Your task to perform on an android device: Clear the shopping cart on ebay. Add razer blade to the cart on ebay Image 0: 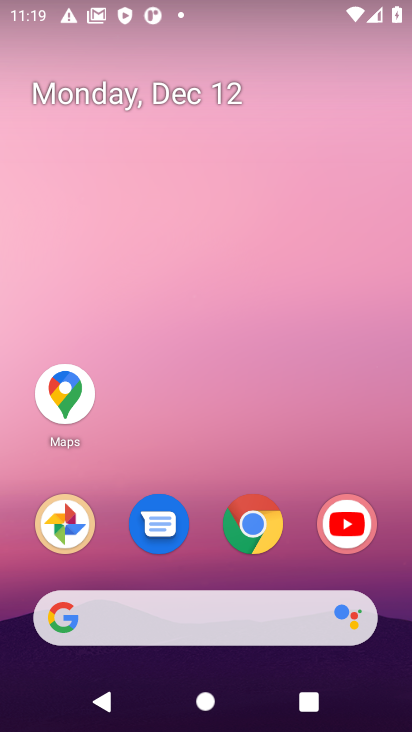
Step 0: click (260, 536)
Your task to perform on an android device: Clear the shopping cart on ebay. Add razer blade to the cart on ebay Image 1: 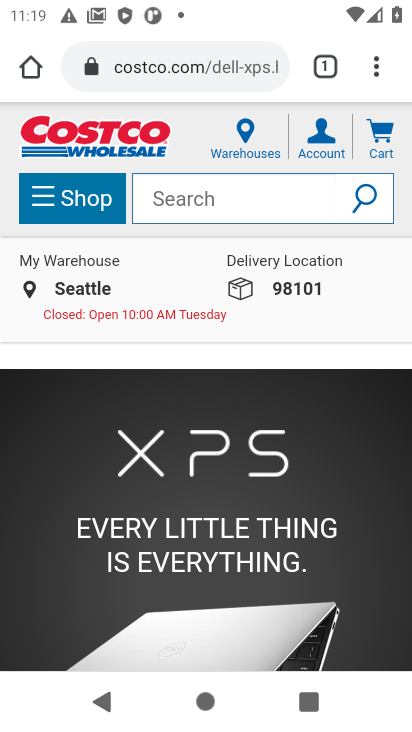
Step 1: click (171, 67)
Your task to perform on an android device: Clear the shopping cart on ebay. Add razer blade to the cart on ebay Image 2: 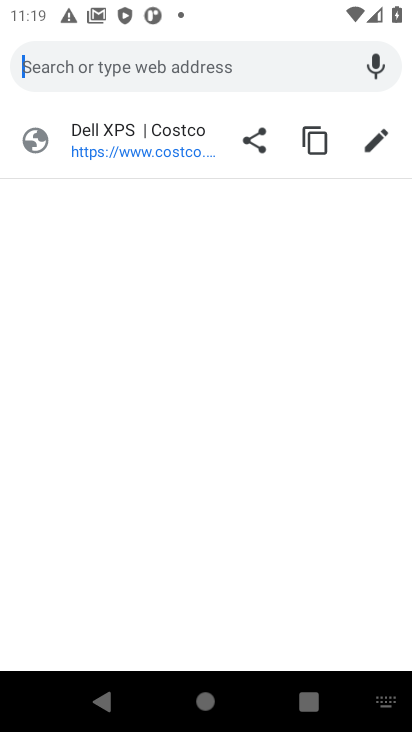
Step 2: type "ebay.com"
Your task to perform on an android device: Clear the shopping cart on ebay. Add razer blade to the cart on ebay Image 3: 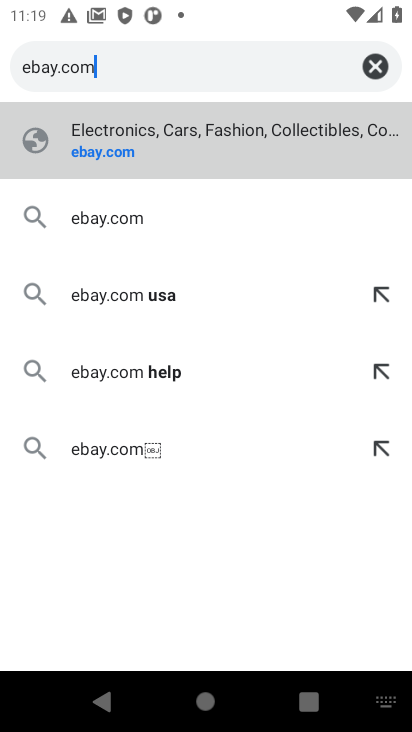
Step 3: click (104, 151)
Your task to perform on an android device: Clear the shopping cart on ebay. Add razer blade to the cart on ebay Image 4: 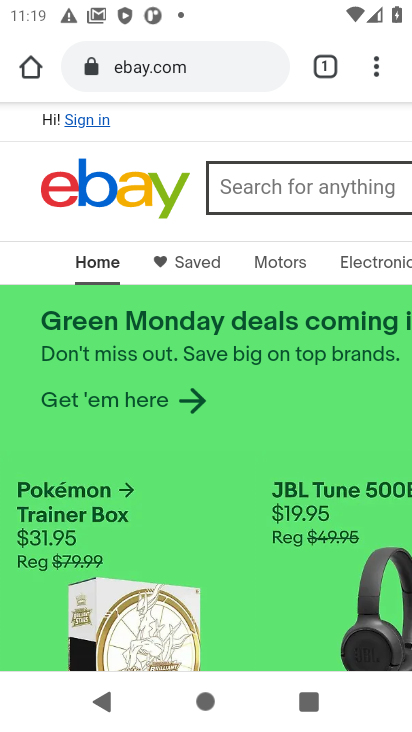
Step 4: drag from (309, 147) to (0, 105)
Your task to perform on an android device: Clear the shopping cart on ebay. Add razer blade to the cart on ebay Image 5: 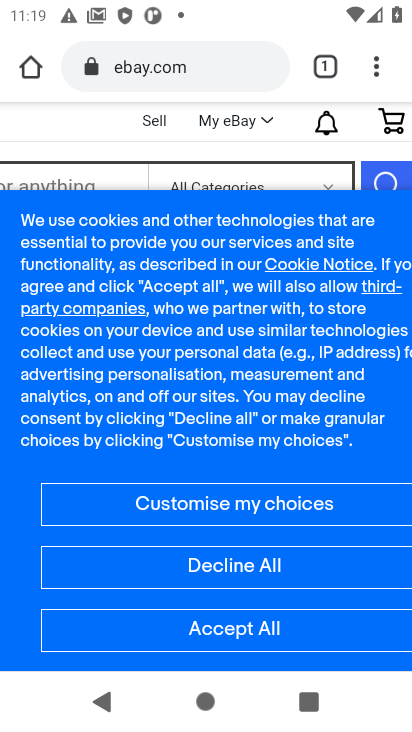
Step 5: click (392, 121)
Your task to perform on an android device: Clear the shopping cart on ebay. Add razer blade to the cart on ebay Image 6: 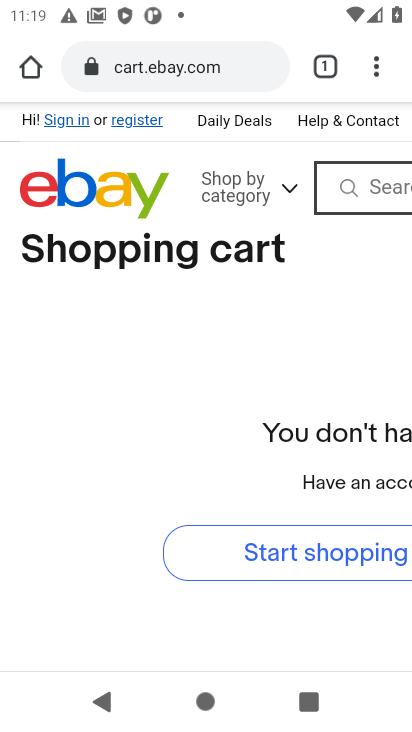
Step 6: click (375, 189)
Your task to perform on an android device: Clear the shopping cart on ebay. Add razer blade to the cart on ebay Image 7: 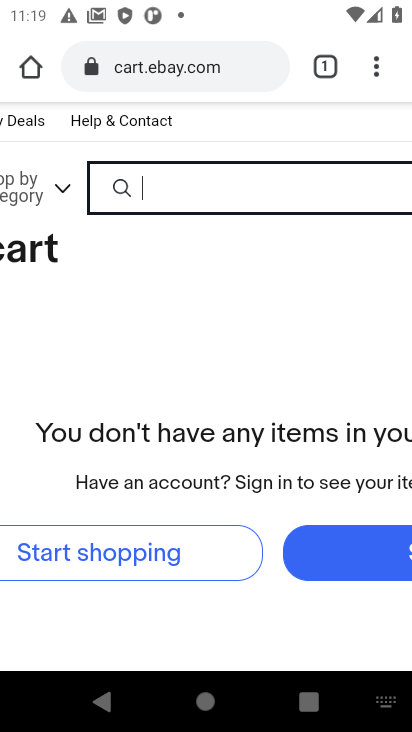
Step 7: type " razer blade"
Your task to perform on an android device: Clear the shopping cart on ebay. Add razer blade to the cart on ebay Image 8: 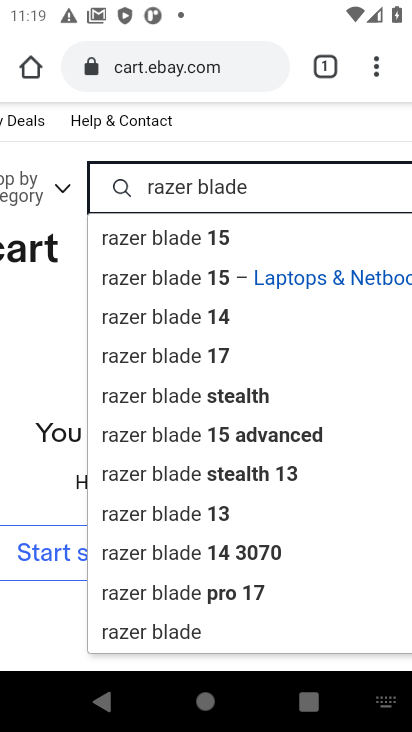
Step 8: click (186, 240)
Your task to perform on an android device: Clear the shopping cart on ebay. Add razer blade to the cart on ebay Image 9: 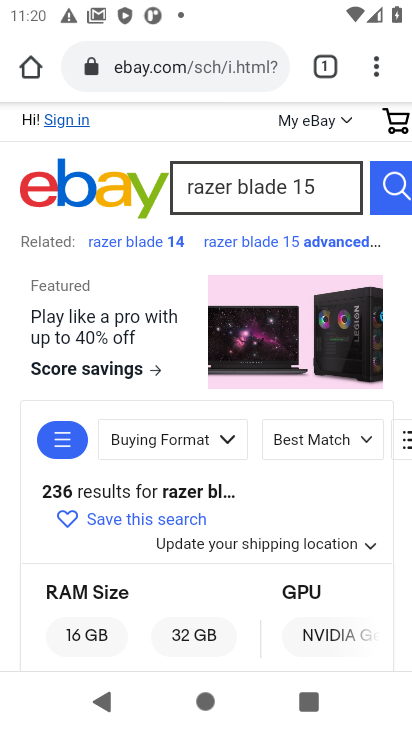
Step 9: drag from (222, 523) to (206, 202)
Your task to perform on an android device: Clear the shopping cart on ebay. Add razer blade to the cart on ebay Image 10: 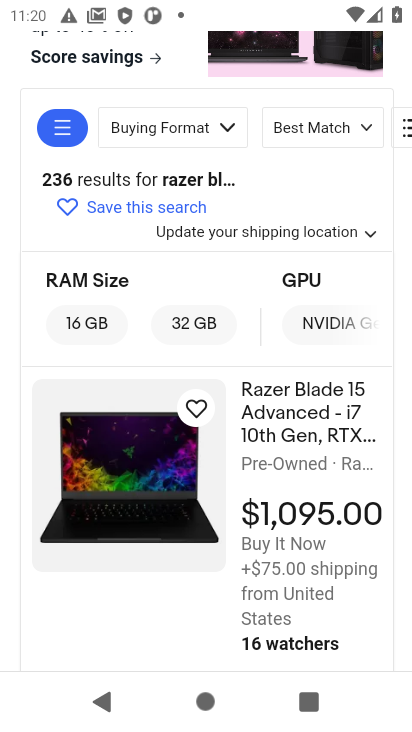
Step 10: click (289, 440)
Your task to perform on an android device: Clear the shopping cart on ebay. Add razer blade to the cart on ebay Image 11: 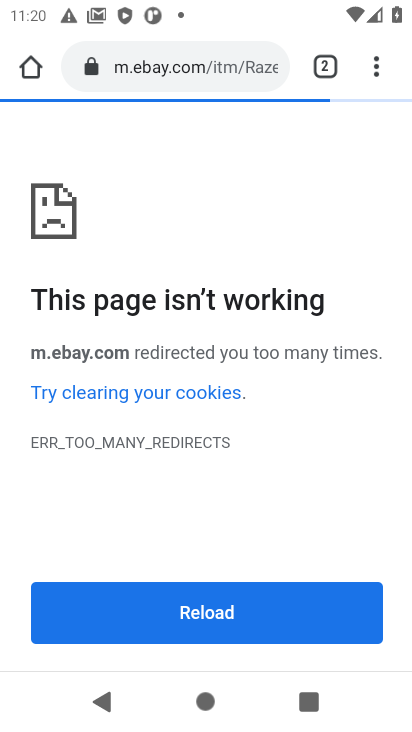
Step 11: task complete